Your task to perform on an android device: Open the Play Movies app and select the watchlist tab. Image 0: 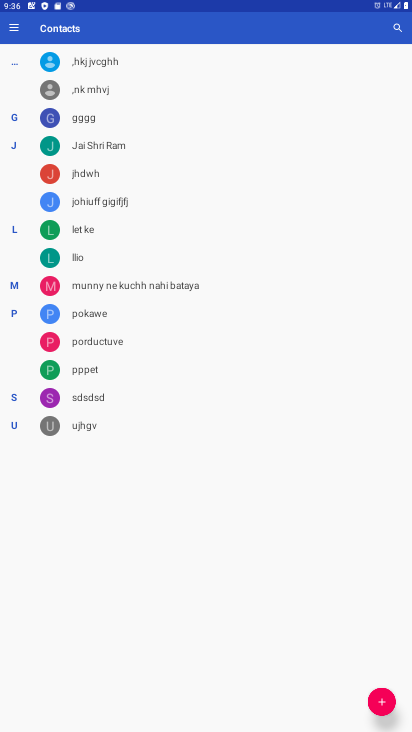
Step 0: press home button
Your task to perform on an android device: Open the Play Movies app and select the watchlist tab. Image 1: 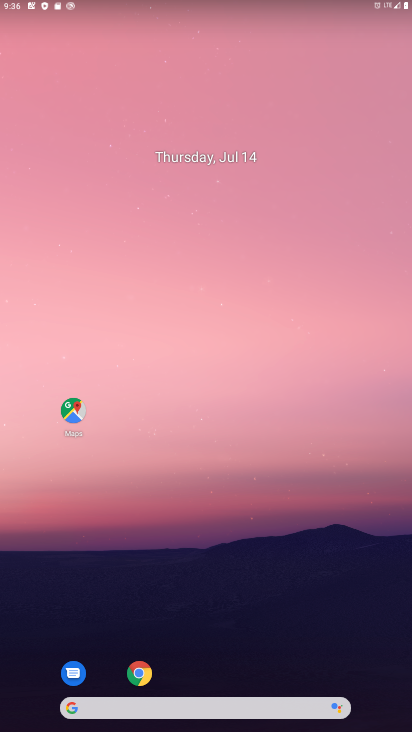
Step 1: drag from (180, 710) to (198, 184)
Your task to perform on an android device: Open the Play Movies app and select the watchlist tab. Image 2: 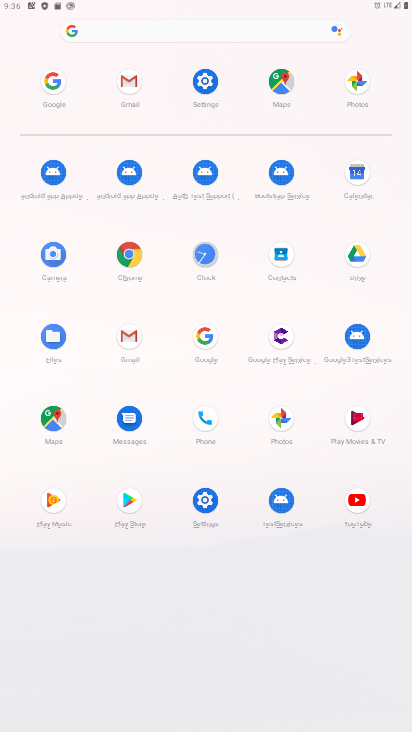
Step 2: click (357, 417)
Your task to perform on an android device: Open the Play Movies app and select the watchlist tab. Image 3: 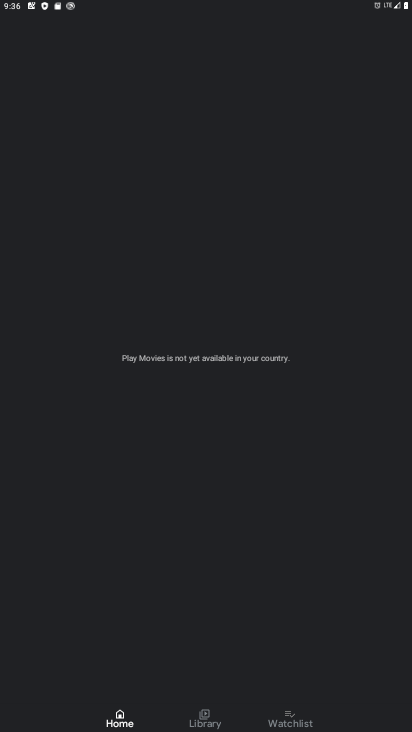
Step 3: click (286, 717)
Your task to perform on an android device: Open the Play Movies app and select the watchlist tab. Image 4: 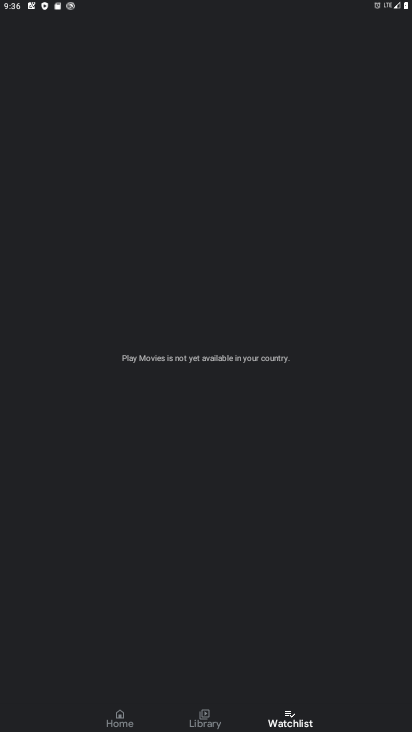
Step 4: task complete